Your task to perform on an android device: turn on data saver in the chrome app Image 0: 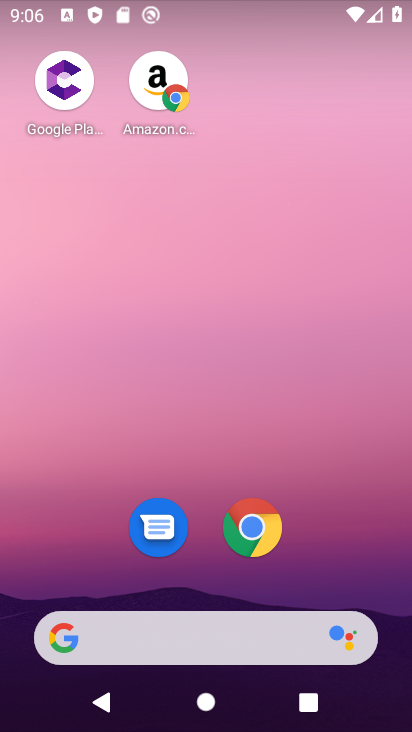
Step 0: drag from (334, 516) to (271, 19)
Your task to perform on an android device: turn on data saver in the chrome app Image 1: 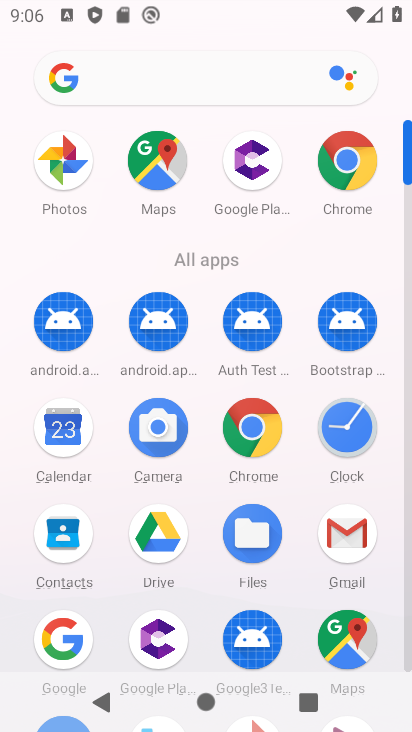
Step 1: drag from (25, 549) to (4, 202)
Your task to perform on an android device: turn on data saver in the chrome app Image 2: 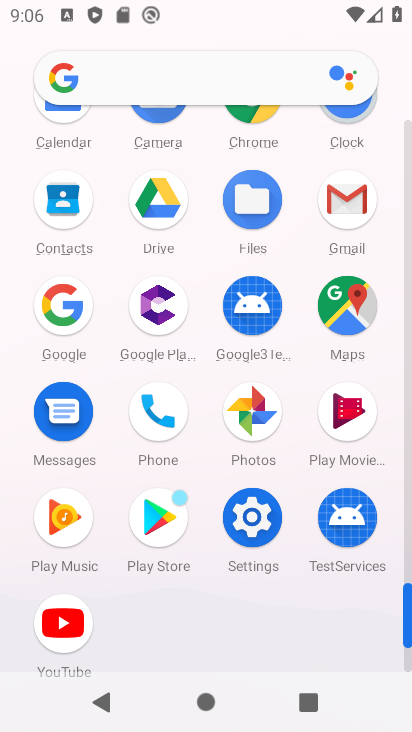
Step 2: drag from (8, 172) to (30, 547)
Your task to perform on an android device: turn on data saver in the chrome app Image 3: 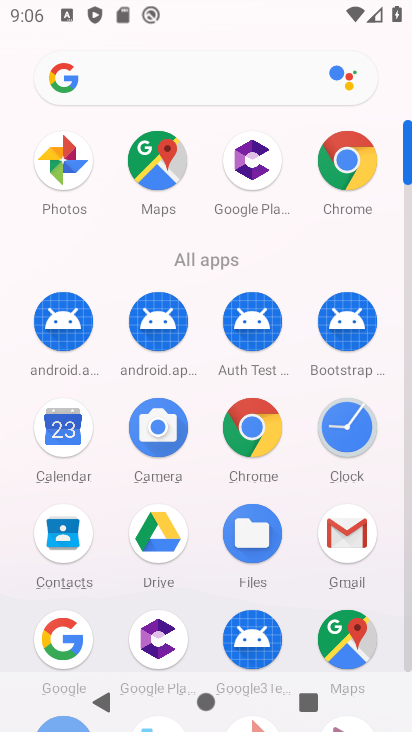
Step 3: click (256, 421)
Your task to perform on an android device: turn on data saver in the chrome app Image 4: 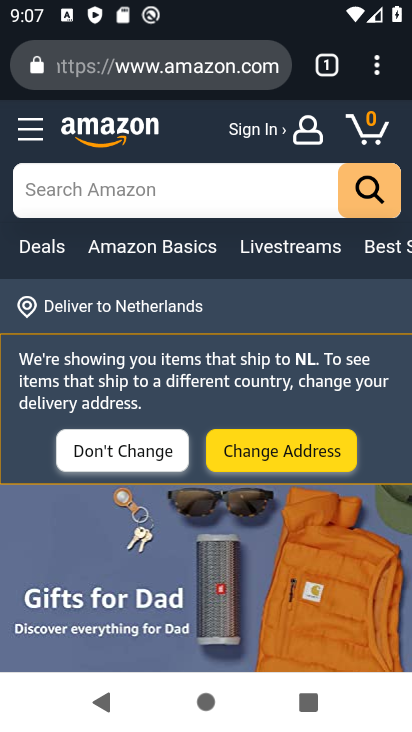
Step 4: drag from (379, 71) to (173, 572)
Your task to perform on an android device: turn on data saver in the chrome app Image 5: 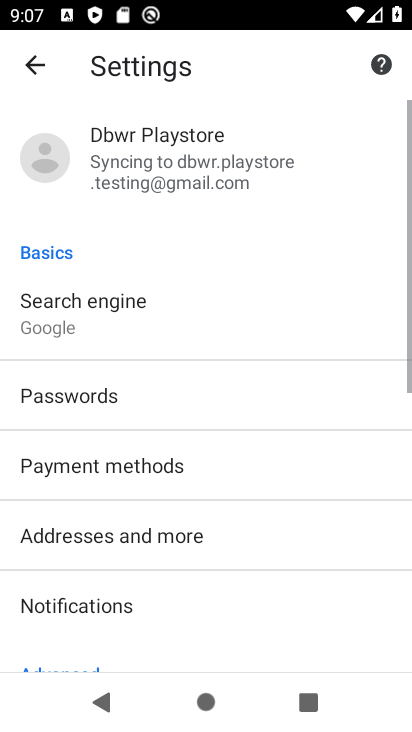
Step 5: drag from (206, 520) to (258, 122)
Your task to perform on an android device: turn on data saver in the chrome app Image 6: 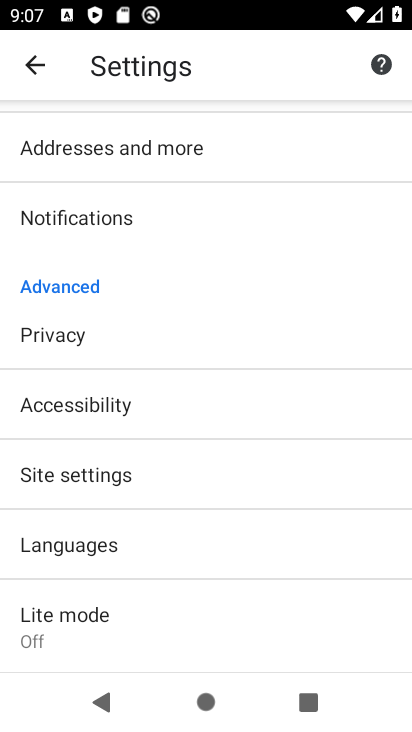
Step 6: drag from (238, 650) to (234, 203)
Your task to perform on an android device: turn on data saver in the chrome app Image 7: 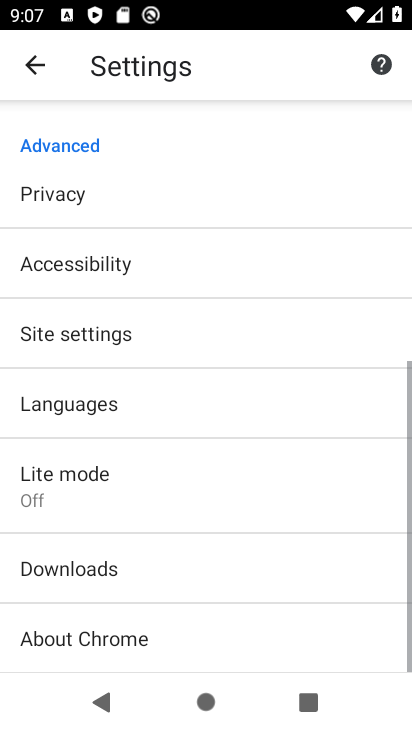
Step 7: click (81, 461)
Your task to perform on an android device: turn on data saver in the chrome app Image 8: 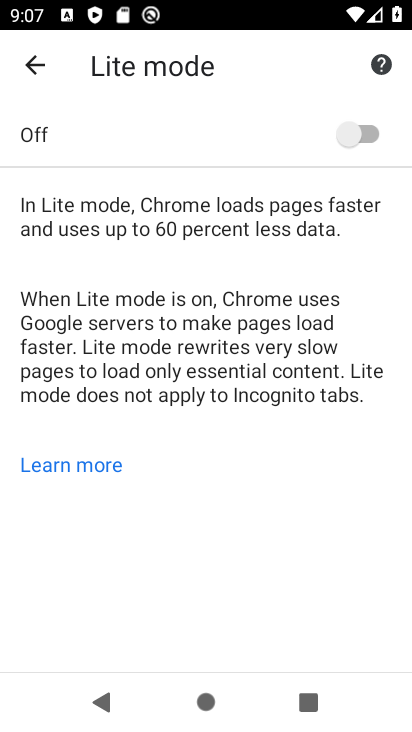
Step 8: click (355, 115)
Your task to perform on an android device: turn on data saver in the chrome app Image 9: 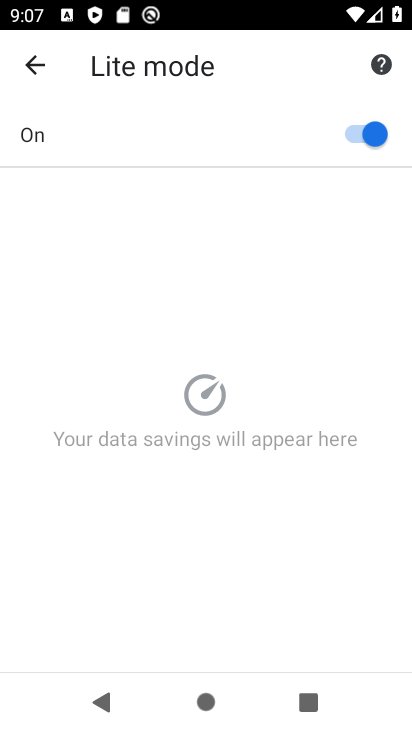
Step 9: task complete